Your task to perform on an android device: turn on showing notifications on the lock screen Image 0: 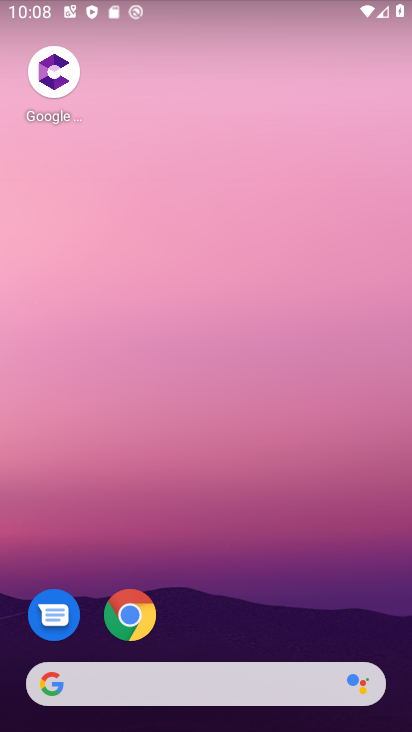
Step 0: drag from (322, 673) to (302, 2)
Your task to perform on an android device: turn on showing notifications on the lock screen Image 1: 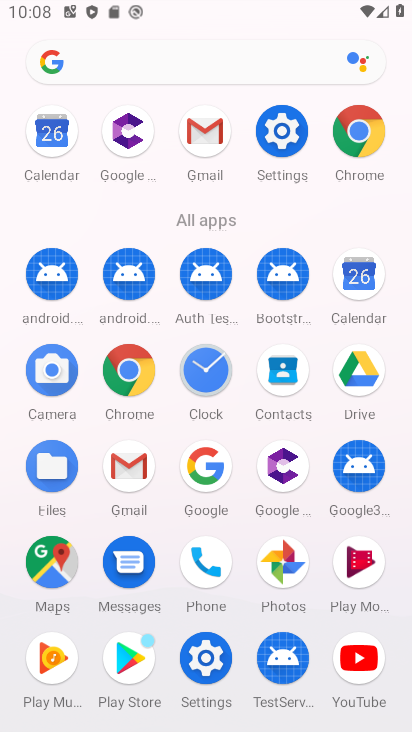
Step 1: click (279, 143)
Your task to perform on an android device: turn on showing notifications on the lock screen Image 2: 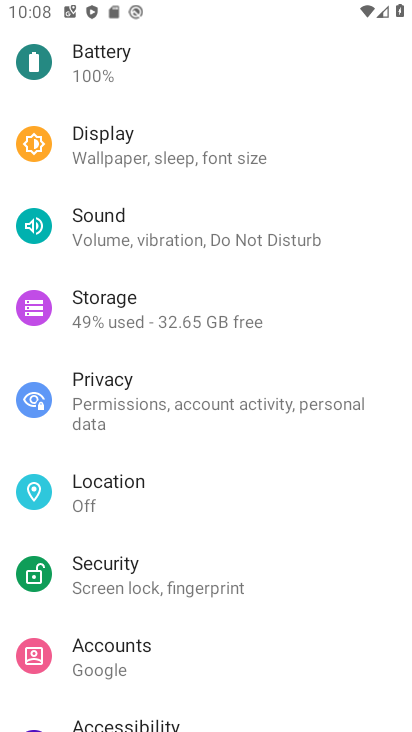
Step 2: drag from (279, 143) to (231, 559)
Your task to perform on an android device: turn on showing notifications on the lock screen Image 3: 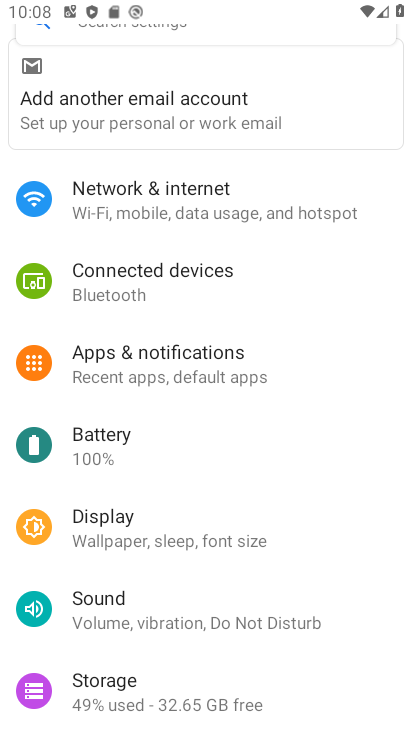
Step 3: click (238, 372)
Your task to perform on an android device: turn on showing notifications on the lock screen Image 4: 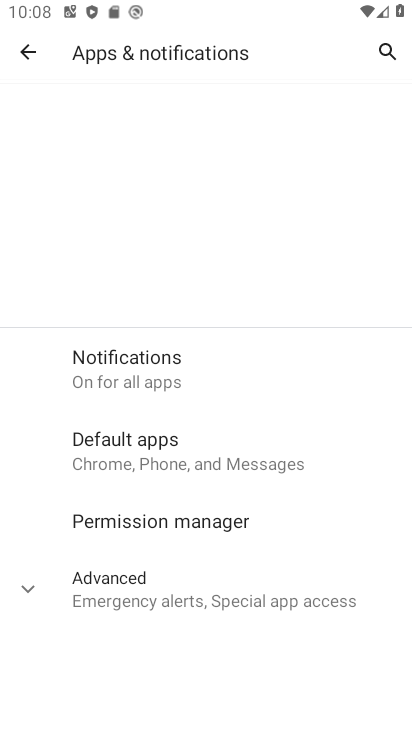
Step 4: drag from (299, 498) to (330, 221)
Your task to perform on an android device: turn on showing notifications on the lock screen Image 5: 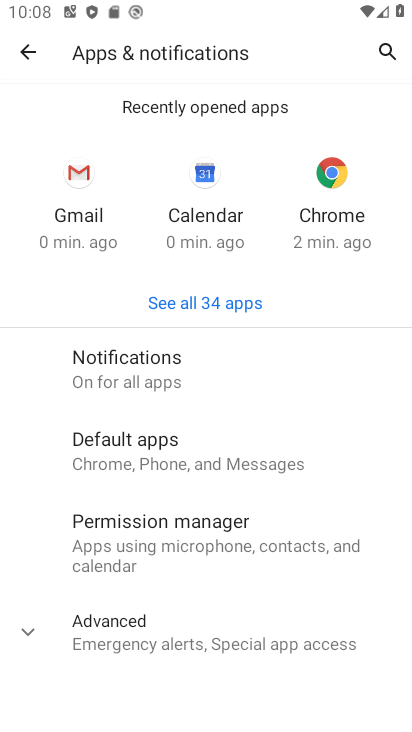
Step 5: click (252, 363)
Your task to perform on an android device: turn on showing notifications on the lock screen Image 6: 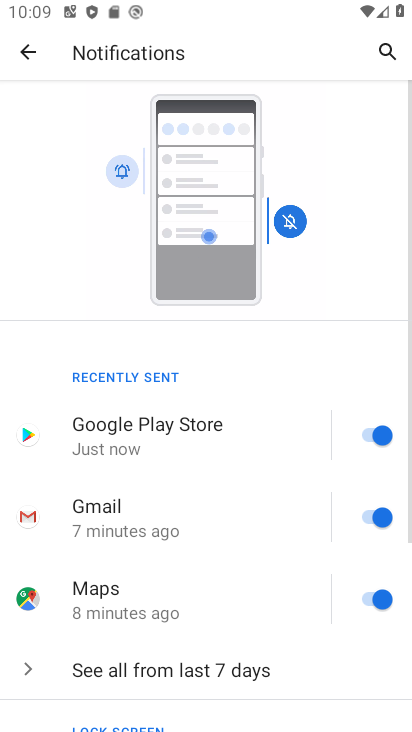
Step 6: drag from (270, 586) to (286, 149)
Your task to perform on an android device: turn on showing notifications on the lock screen Image 7: 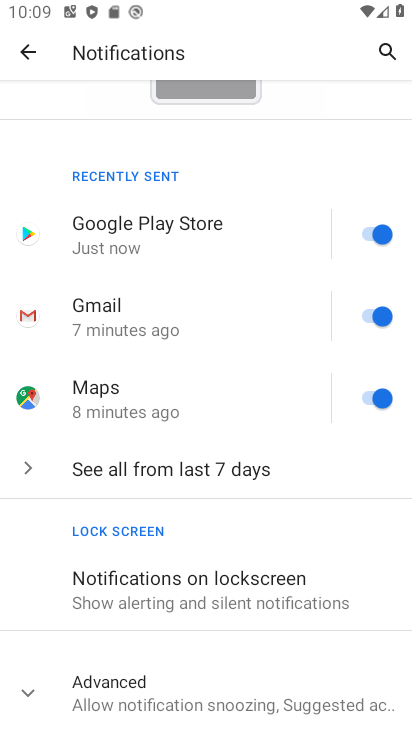
Step 7: click (315, 601)
Your task to perform on an android device: turn on showing notifications on the lock screen Image 8: 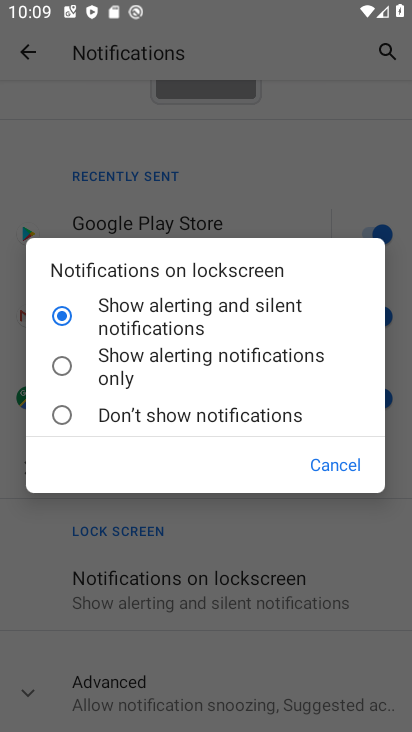
Step 8: task complete